Your task to perform on an android device: change timer sound Image 0: 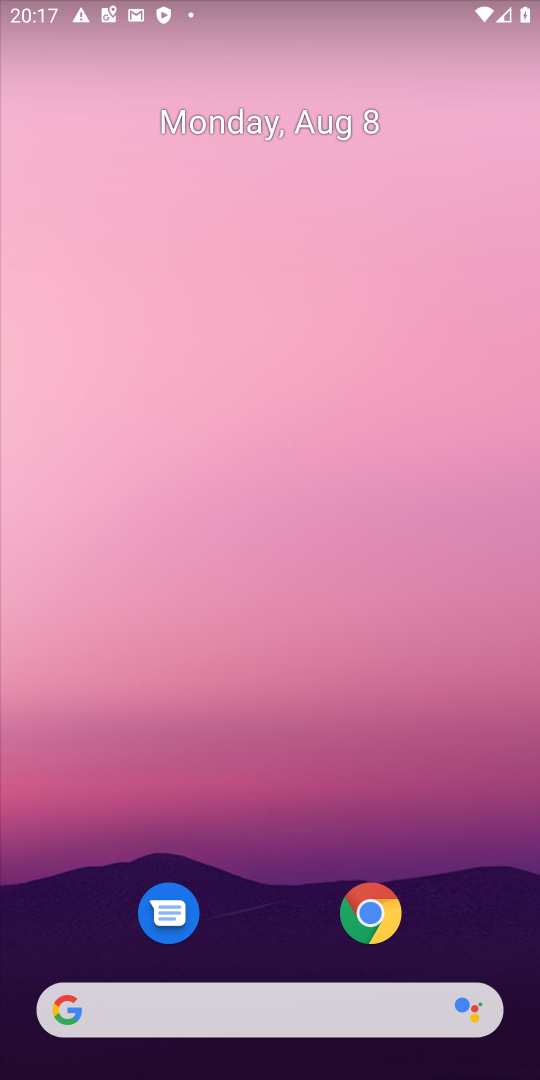
Step 0: drag from (259, 947) to (243, 82)
Your task to perform on an android device: change timer sound Image 1: 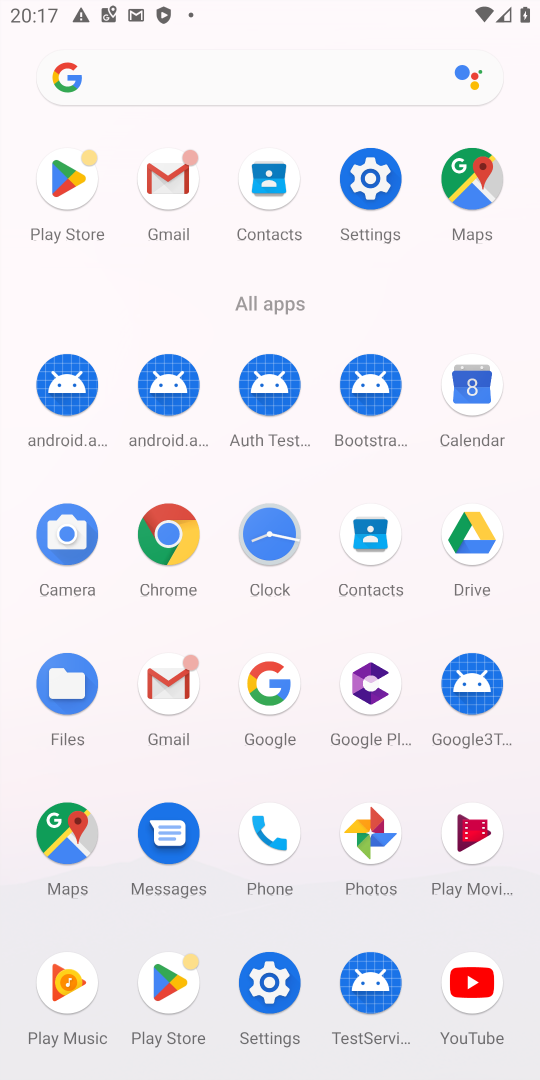
Step 1: click (282, 556)
Your task to perform on an android device: change timer sound Image 2: 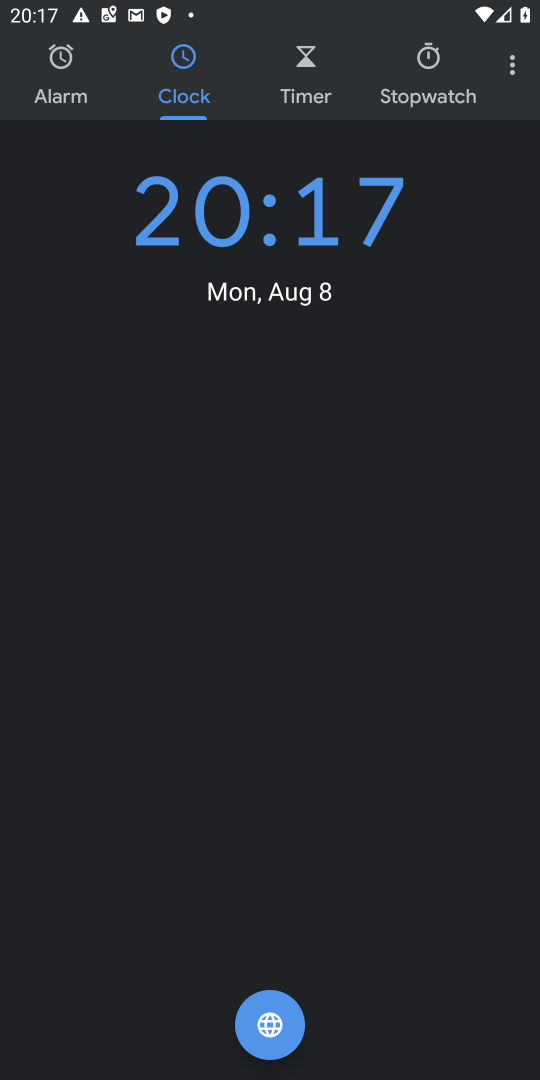
Step 2: click (500, 56)
Your task to perform on an android device: change timer sound Image 3: 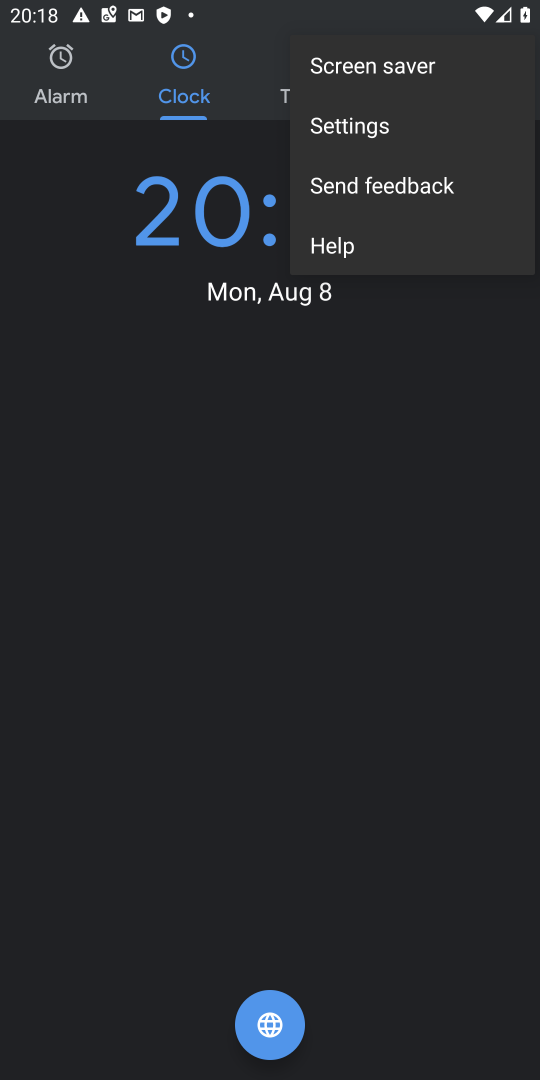
Step 3: click (380, 126)
Your task to perform on an android device: change timer sound Image 4: 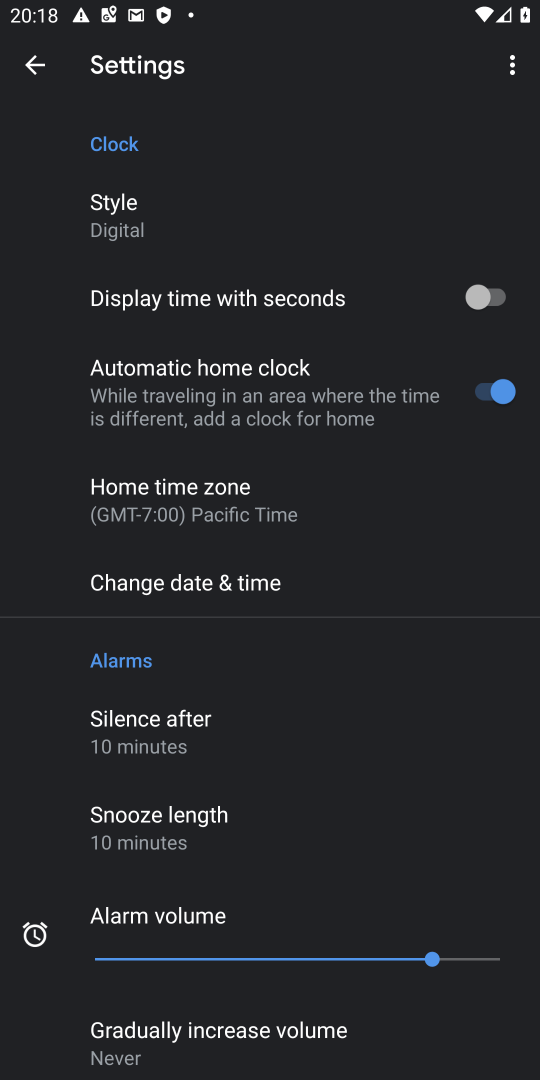
Step 4: drag from (114, 867) to (145, 381)
Your task to perform on an android device: change timer sound Image 5: 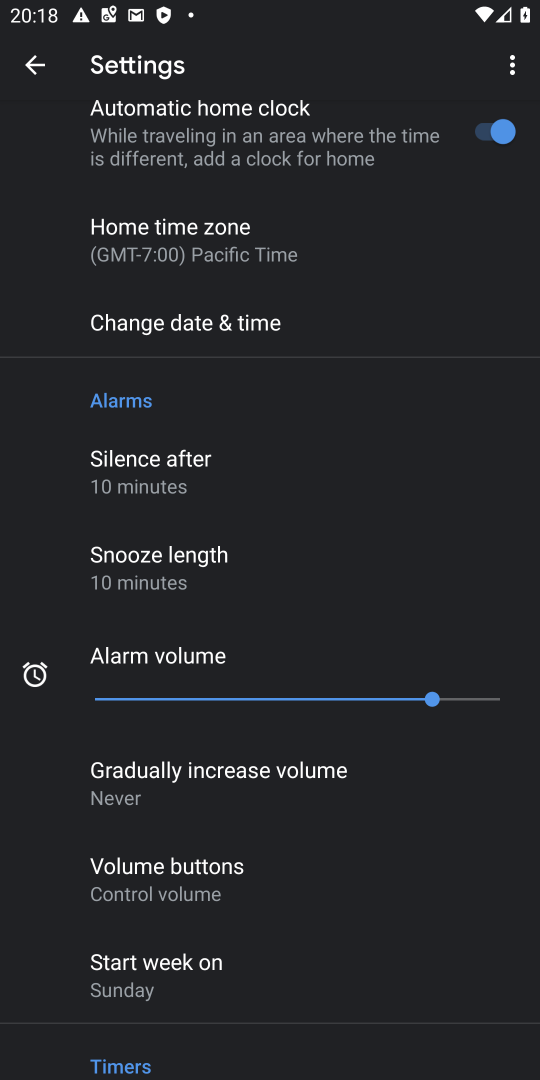
Step 5: drag from (334, 887) to (274, 158)
Your task to perform on an android device: change timer sound Image 6: 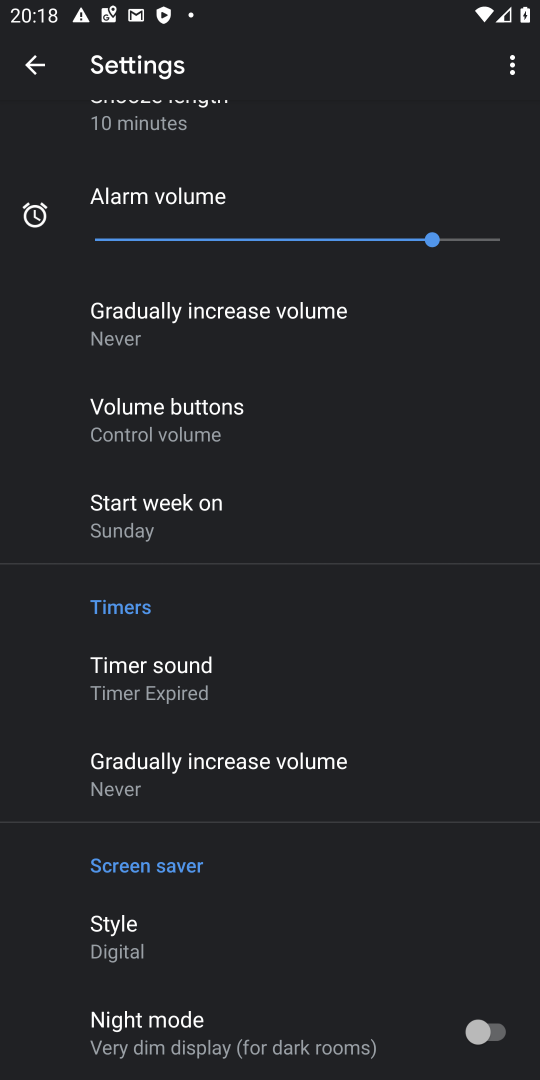
Step 6: click (161, 677)
Your task to perform on an android device: change timer sound Image 7: 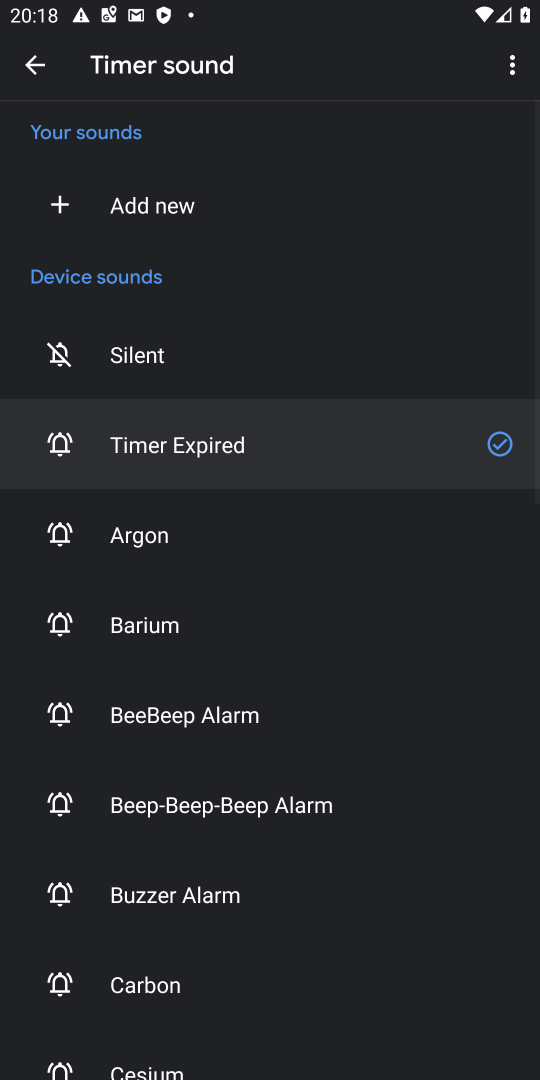
Step 7: click (129, 964)
Your task to perform on an android device: change timer sound Image 8: 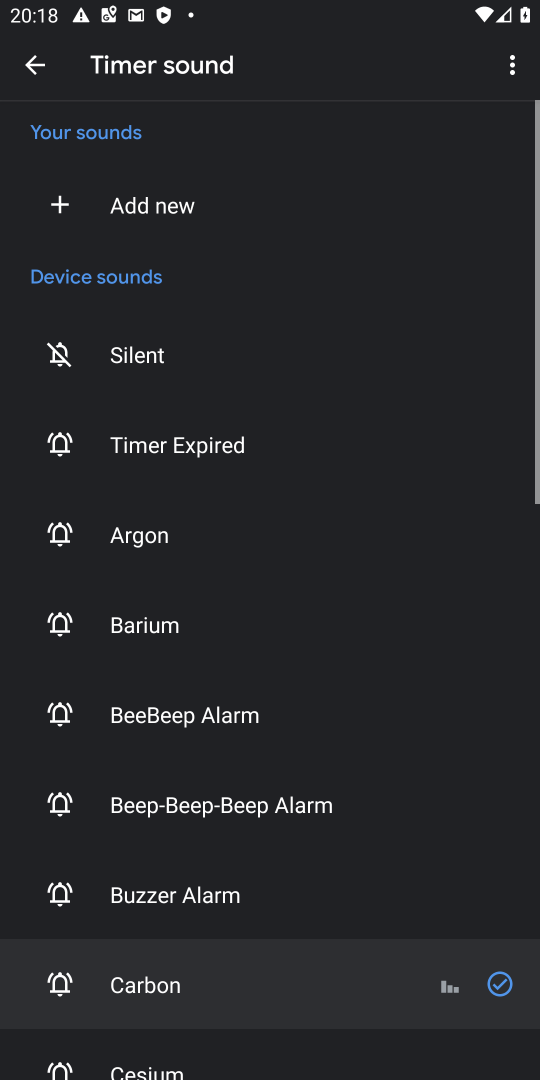
Step 8: task complete